Your task to perform on an android device: Go to internet settings Image 0: 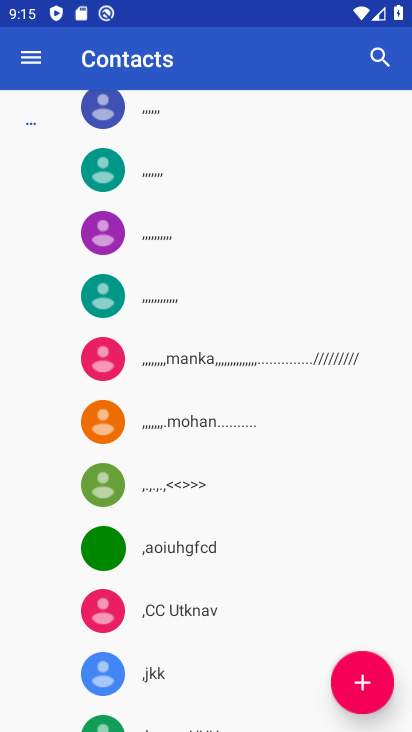
Step 0: drag from (207, 627) to (263, 173)
Your task to perform on an android device: Go to internet settings Image 1: 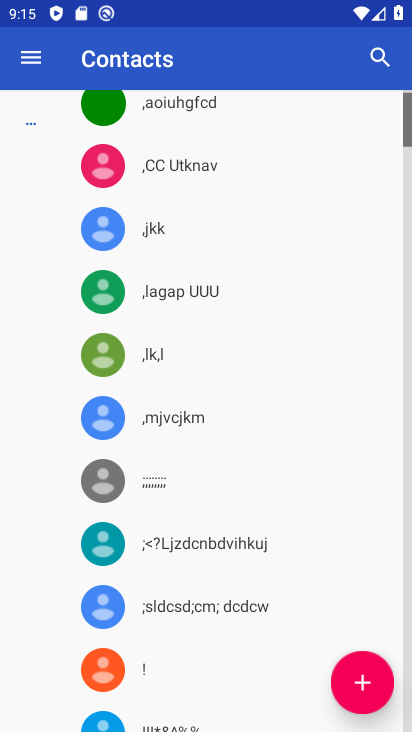
Step 1: press home button
Your task to perform on an android device: Go to internet settings Image 2: 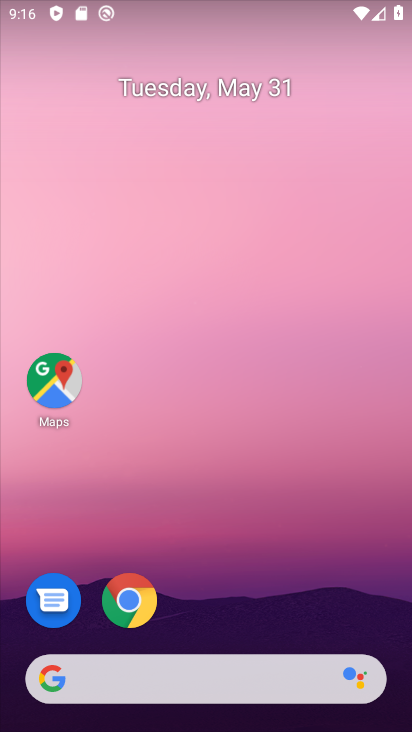
Step 2: drag from (233, 629) to (231, 214)
Your task to perform on an android device: Go to internet settings Image 3: 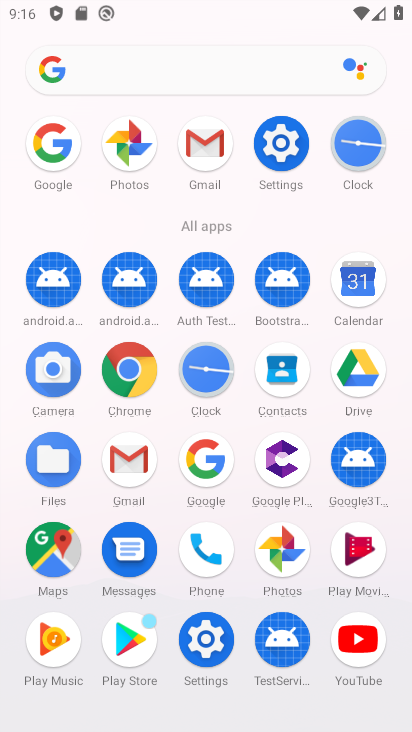
Step 3: click (278, 165)
Your task to perform on an android device: Go to internet settings Image 4: 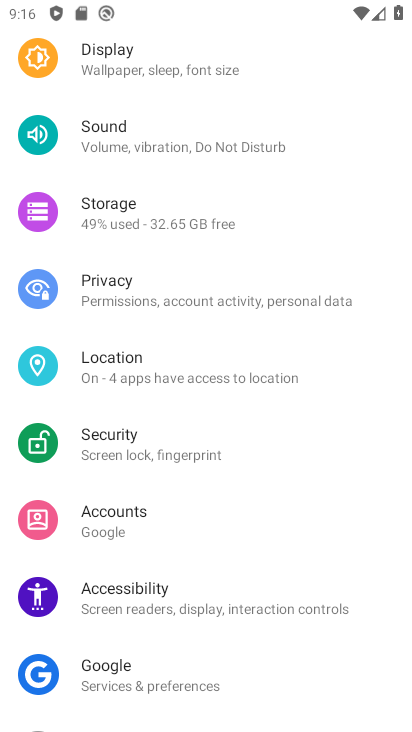
Step 4: drag from (170, 180) to (3, 518)
Your task to perform on an android device: Go to internet settings Image 5: 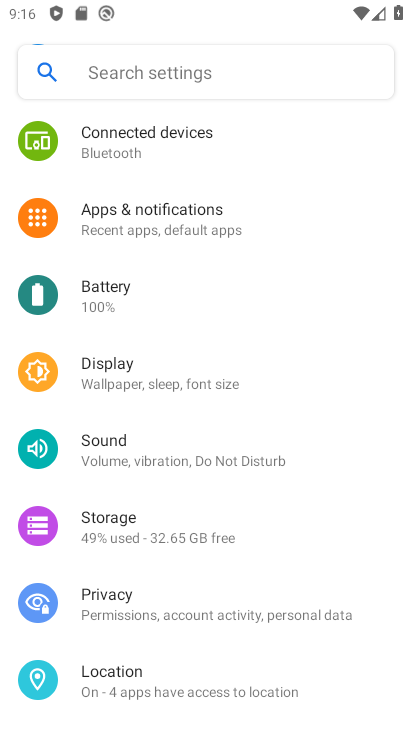
Step 5: drag from (218, 216) to (186, 673)
Your task to perform on an android device: Go to internet settings Image 6: 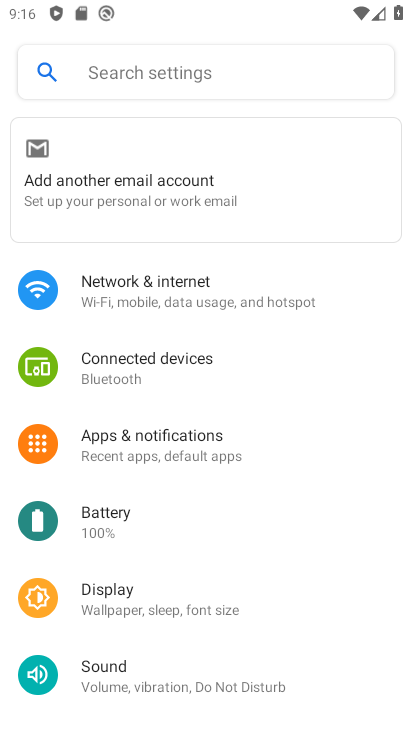
Step 6: click (133, 283)
Your task to perform on an android device: Go to internet settings Image 7: 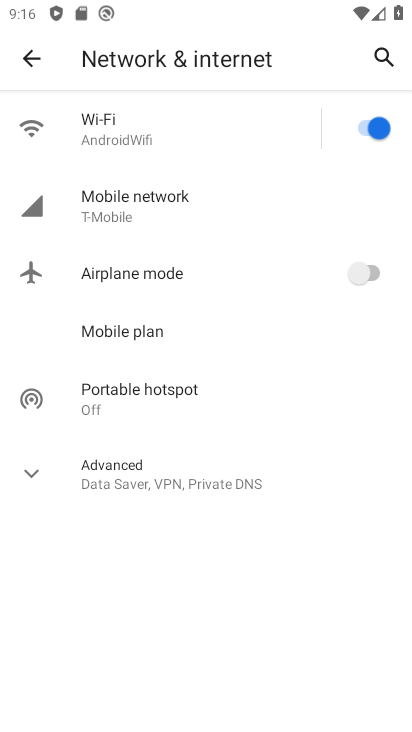
Step 7: task complete